Your task to perform on an android device: Show me popular games on the Play Store Image 0: 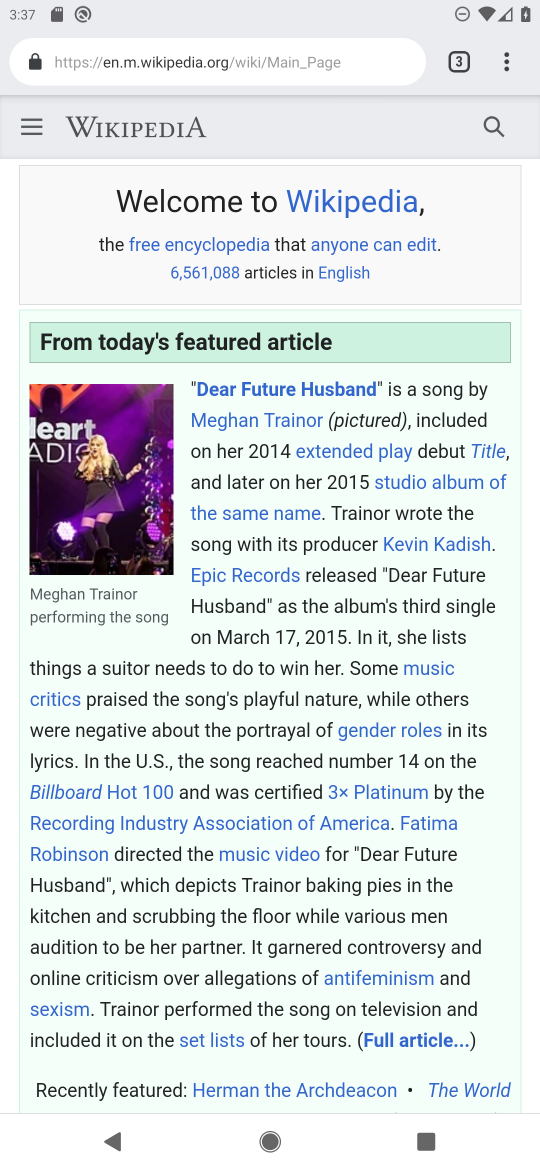
Step 0: press home button
Your task to perform on an android device: Show me popular games on the Play Store Image 1: 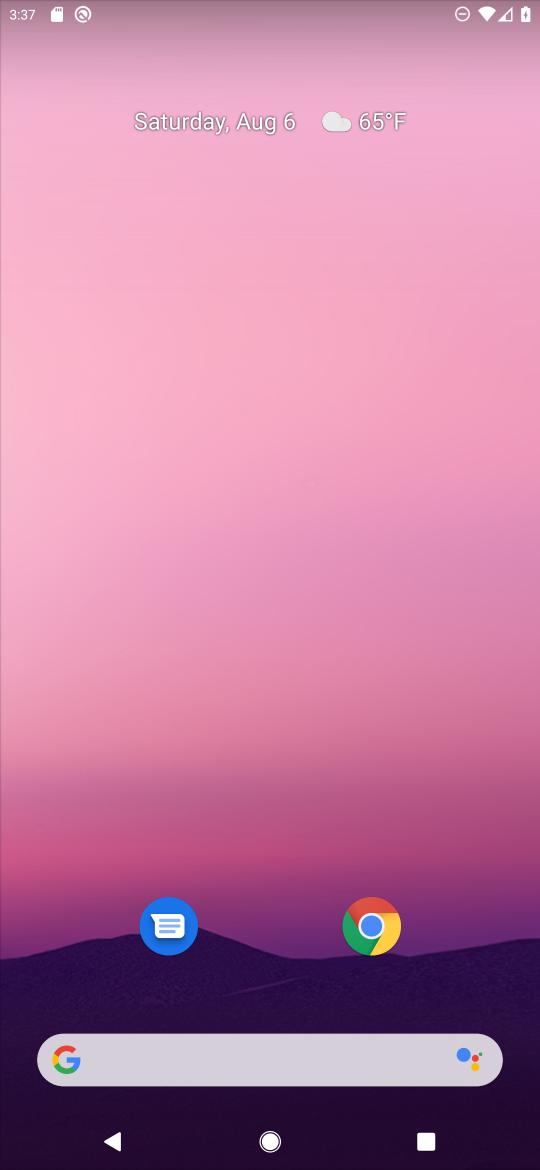
Step 1: drag from (256, 977) to (295, 273)
Your task to perform on an android device: Show me popular games on the Play Store Image 2: 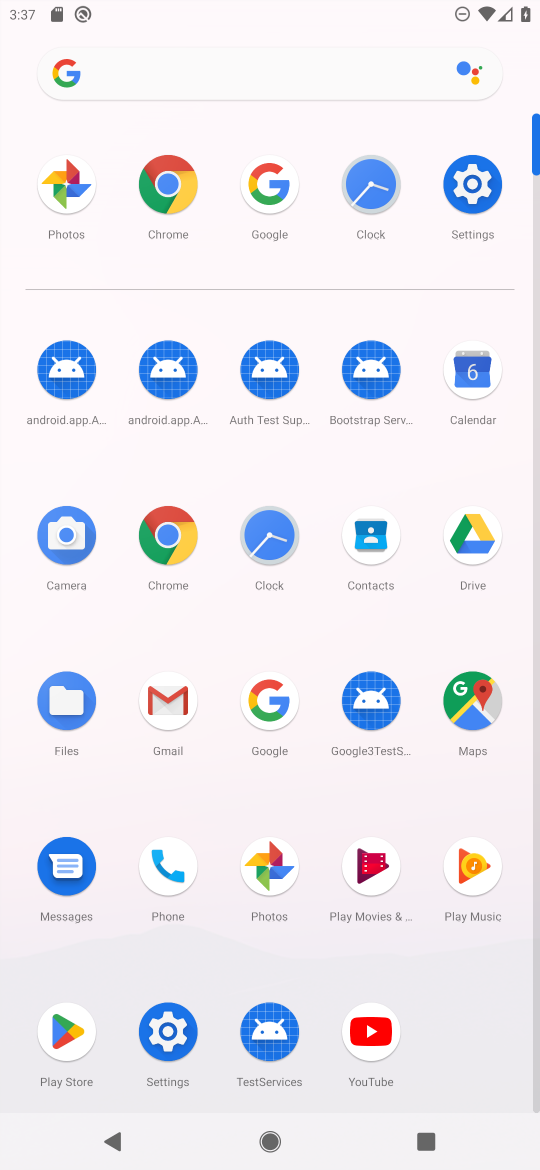
Step 2: click (82, 1040)
Your task to perform on an android device: Show me popular games on the Play Store Image 3: 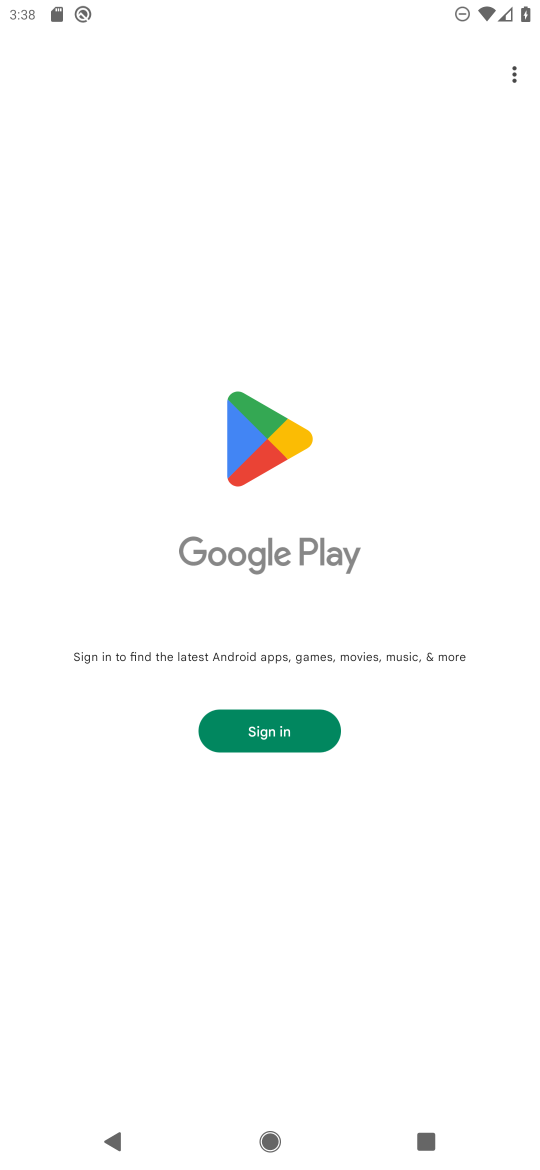
Step 3: task complete